Your task to perform on an android device: Open Google Maps and go to "Timeline" Image 0: 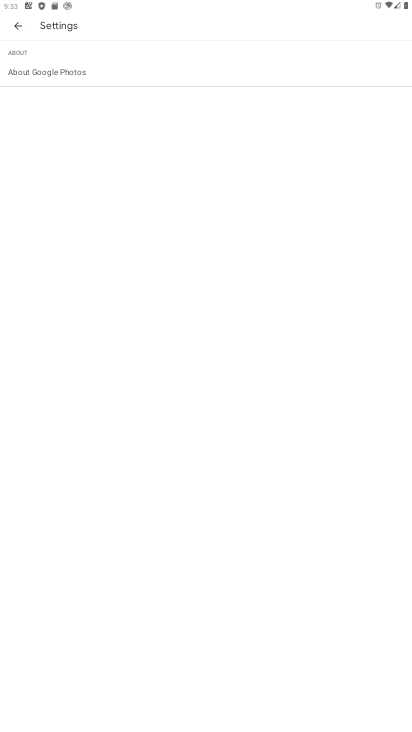
Step 0: press home button
Your task to perform on an android device: Open Google Maps and go to "Timeline" Image 1: 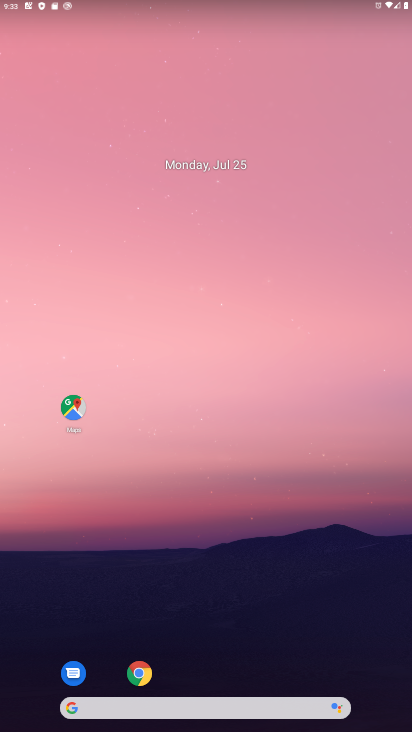
Step 1: drag from (244, 670) to (140, 1)
Your task to perform on an android device: Open Google Maps and go to "Timeline" Image 2: 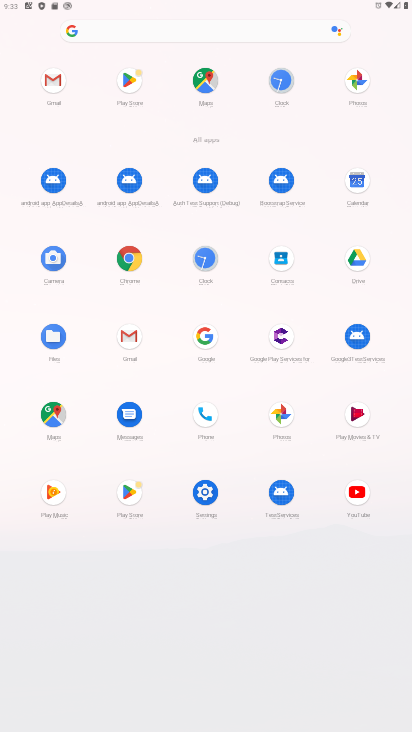
Step 2: click (47, 405)
Your task to perform on an android device: Open Google Maps and go to "Timeline" Image 3: 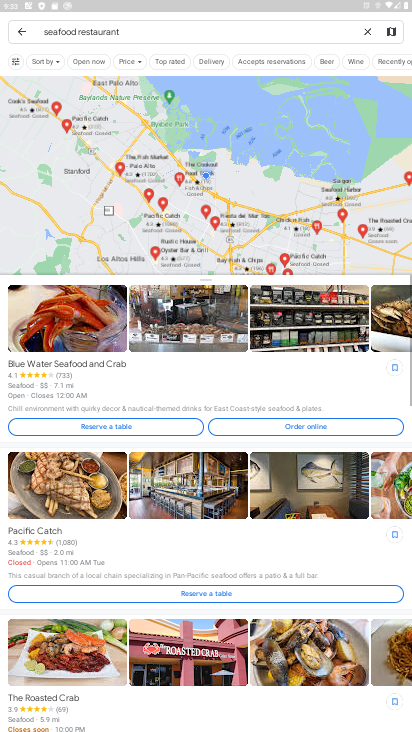
Step 3: click (15, 30)
Your task to perform on an android device: Open Google Maps and go to "Timeline" Image 4: 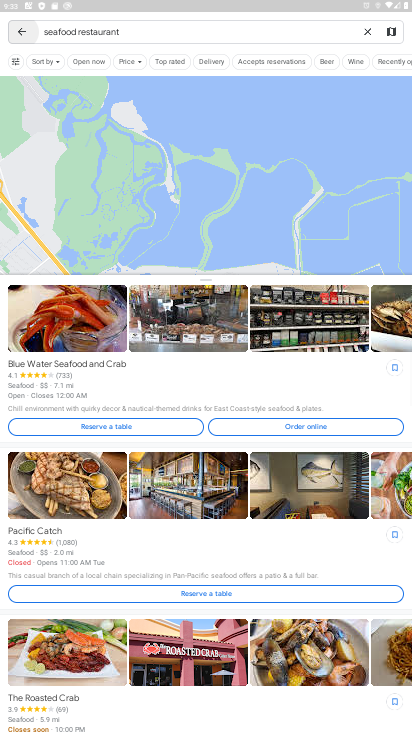
Step 4: click (15, 30)
Your task to perform on an android device: Open Google Maps and go to "Timeline" Image 5: 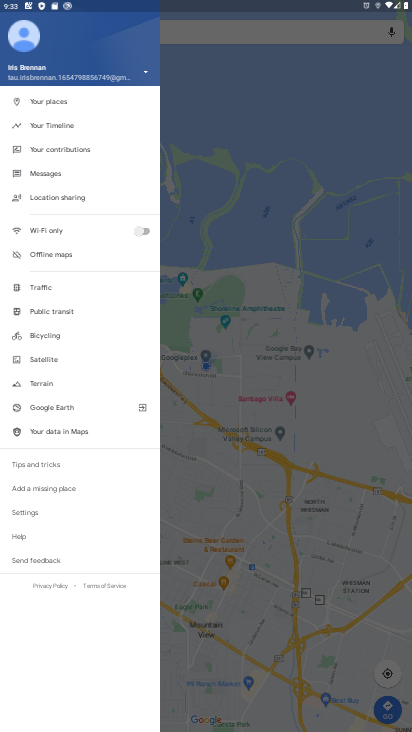
Step 5: click (15, 30)
Your task to perform on an android device: Open Google Maps and go to "Timeline" Image 6: 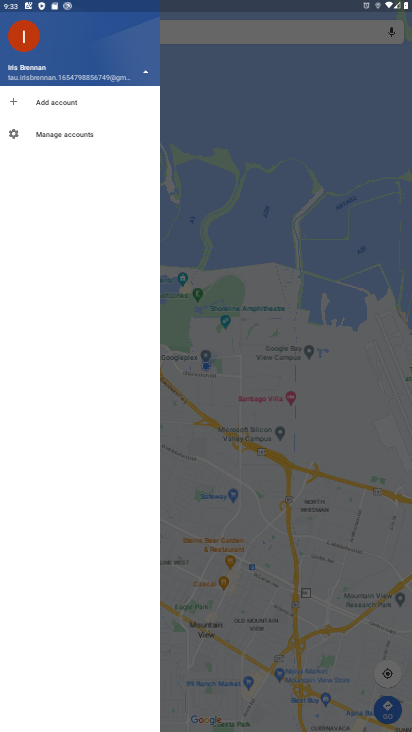
Step 6: click (83, 133)
Your task to perform on an android device: Open Google Maps and go to "Timeline" Image 7: 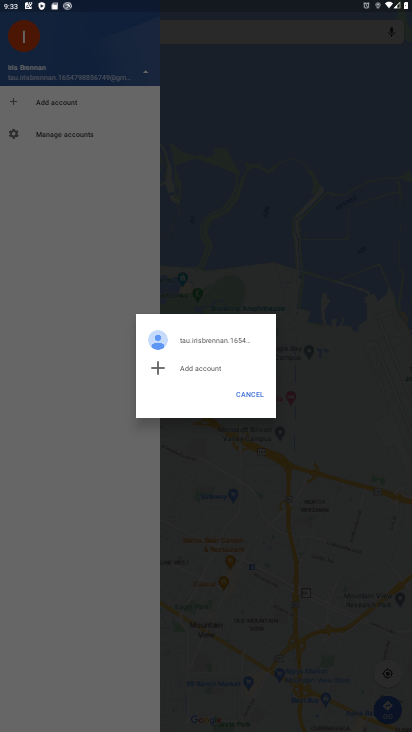
Step 7: press back button
Your task to perform on an android device: Open Google Maps and go to "Timeline" Image 8: 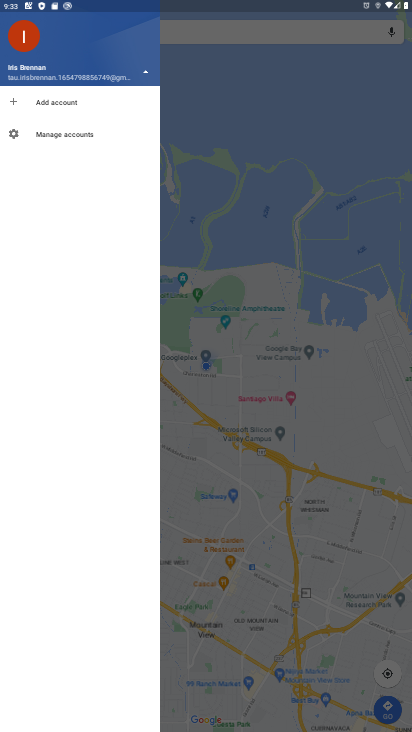
Step 8: press back button
Your task to perform on an android device: Open Google Maps and go to "Timeline" Image 9: 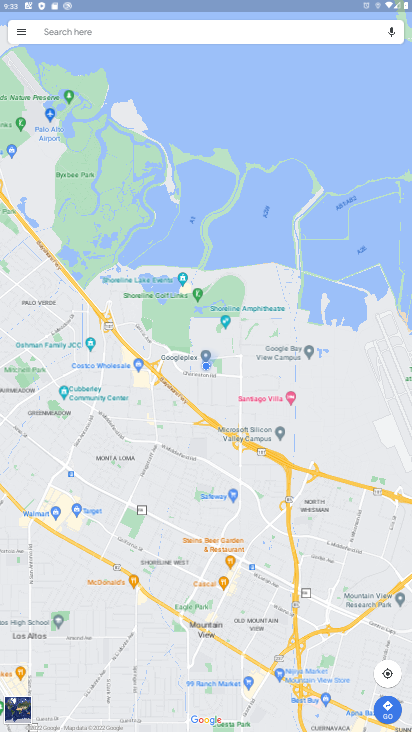
Step 9: click (18, 30)
Your task to perform on an android device: Open Google Maps and go to "Timeline" Image 10: 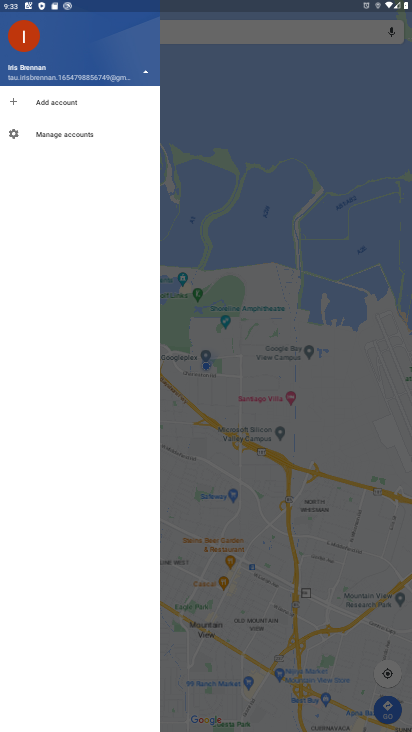
Step 10: click (140, 79)
Your task to perform on an android device: Open Google Maps and go to "Timeline" Image 11: 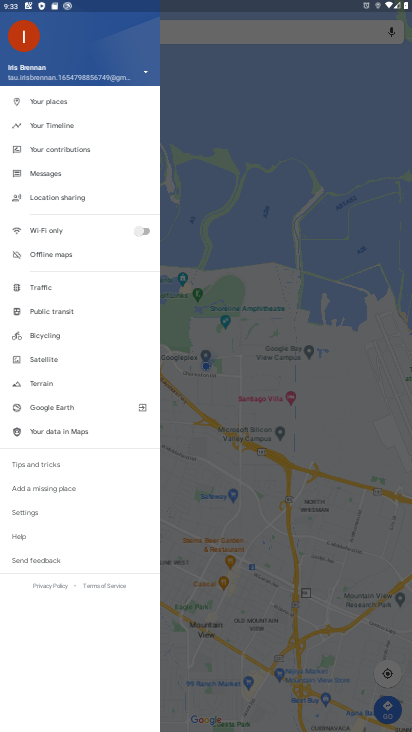
Step 11: click (58, 127)
Your task to perform on an android device: Open Google Maps and go to "Timeline" Image 12: 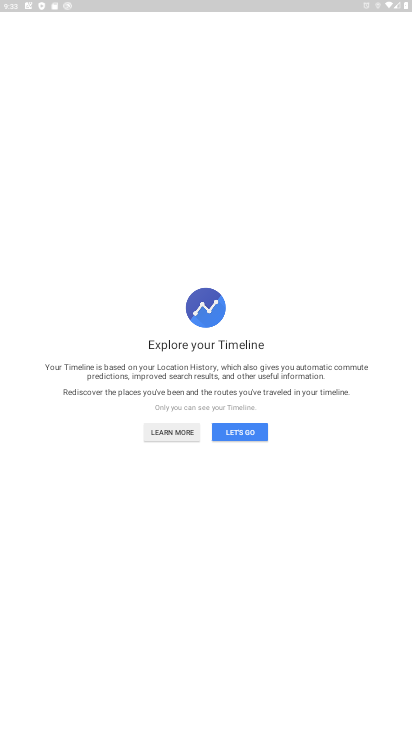
Step 12: task complete